Your task to perform on an android device: turn pop-ups on in chrome Image 0: 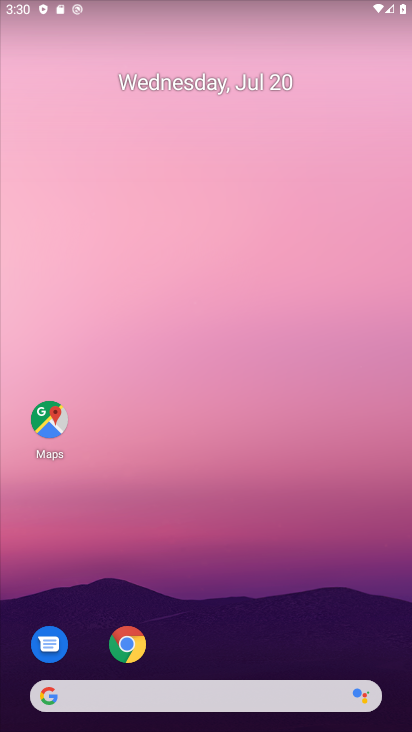
Step 0: click (129, 636)
Your task to perform on an android device: turn pop-ups on in chrome Image 1: 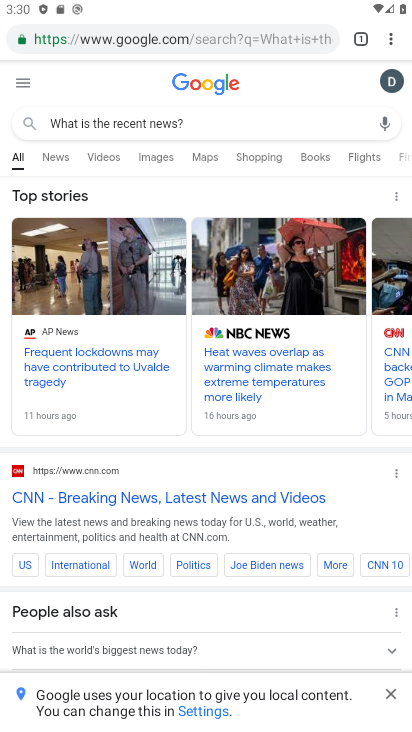
Step 1: click (393, 45)
Your task to perform on an android device: turn pop-ups on in chrome Image 2: 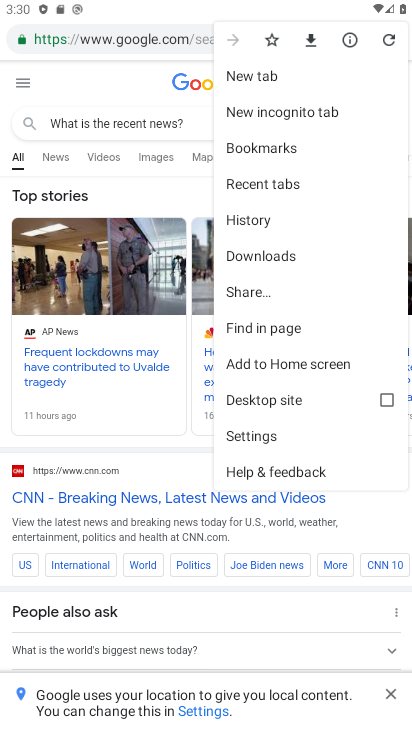
Step 2: click (302, 437)
Your task to perform on an android device: turn pop-ups on in chrome Image 3: 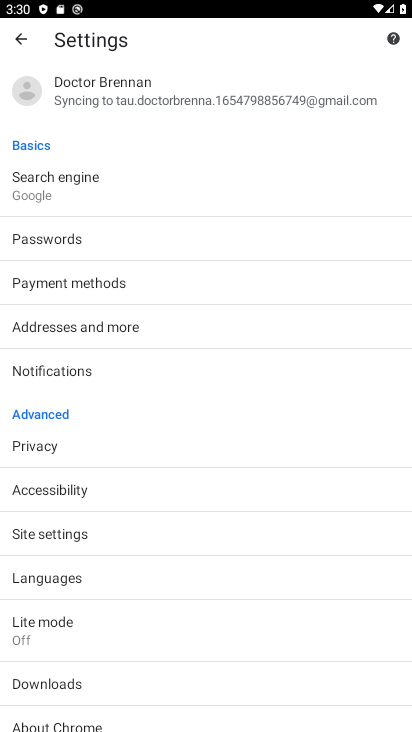
Step 3: click (99, 536)
Your task to perform on an android device: turn pop-ups on in chrome Image 4: 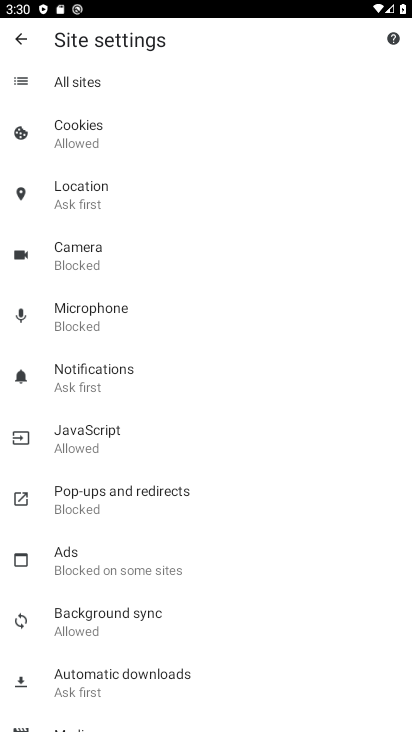
Step 4: click (126, 512)
Your task to perform on an android device: turn pop-ups on in chrome Image 5: 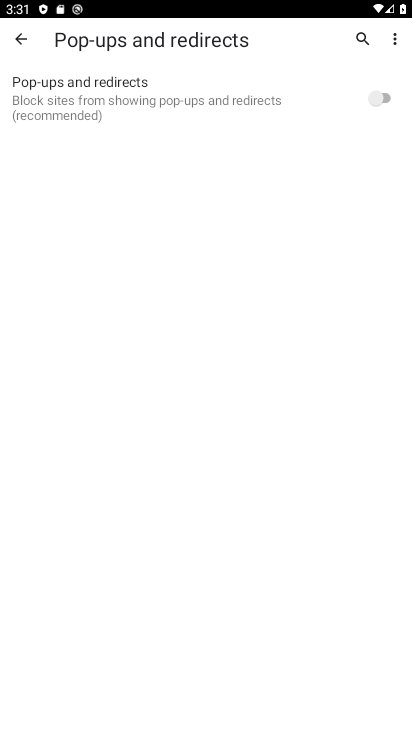
Step 5: click (389, 103)
Your task to perform on an android device: turn pop-ups on in chrome Image 6: 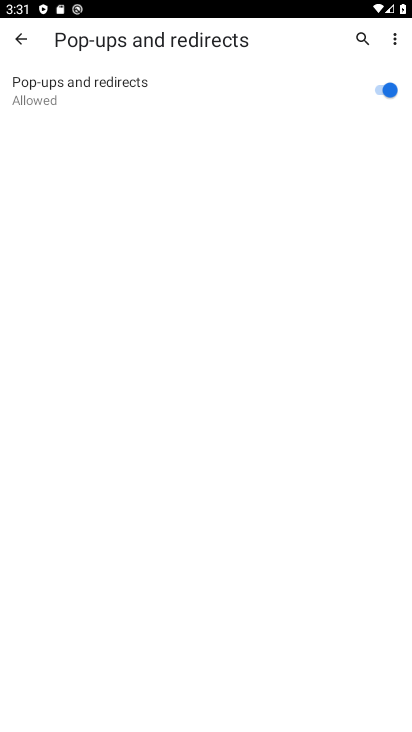
Step 6: task complete